Your task to perform on an android device: Add "energizer triple a" to the cart on amazon.com Image 0: 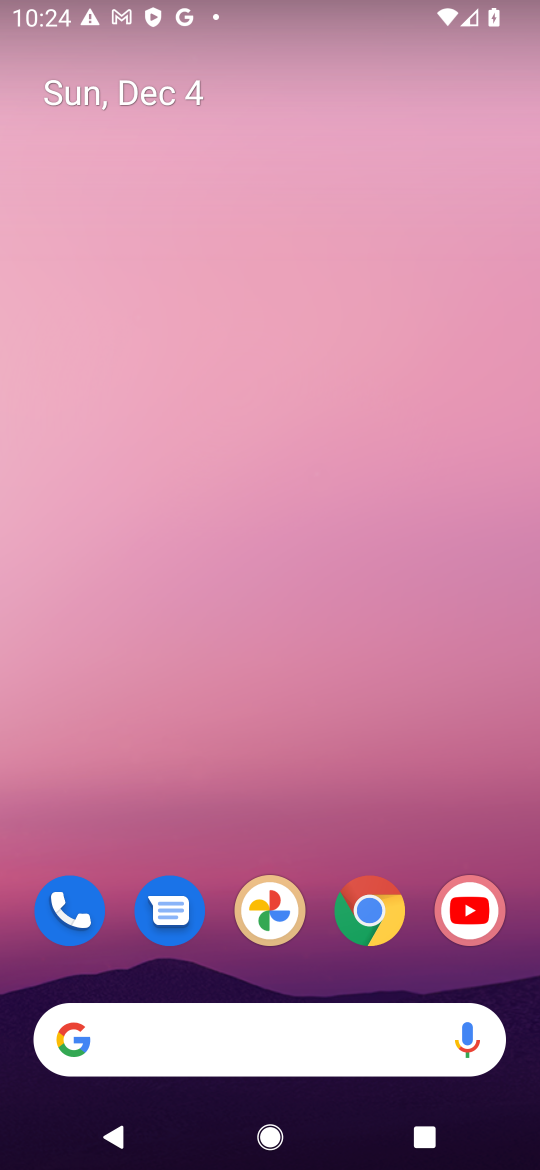
Step 0: drag from (332, 1102) to (253, 48)
Your task to perform on an android device: Add "energizer triple a" to the cart on amazon.com Image 1: 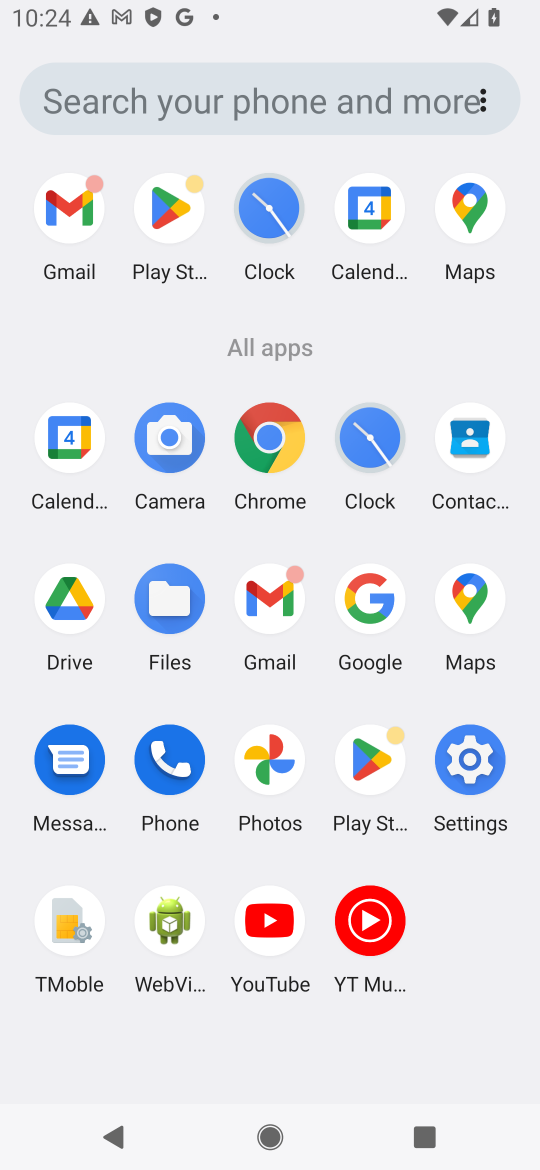
Step 1: click (261, 427)
Your task to perform on an android device: Add "energizer triple a" to the cart on amazon.com Image 2: 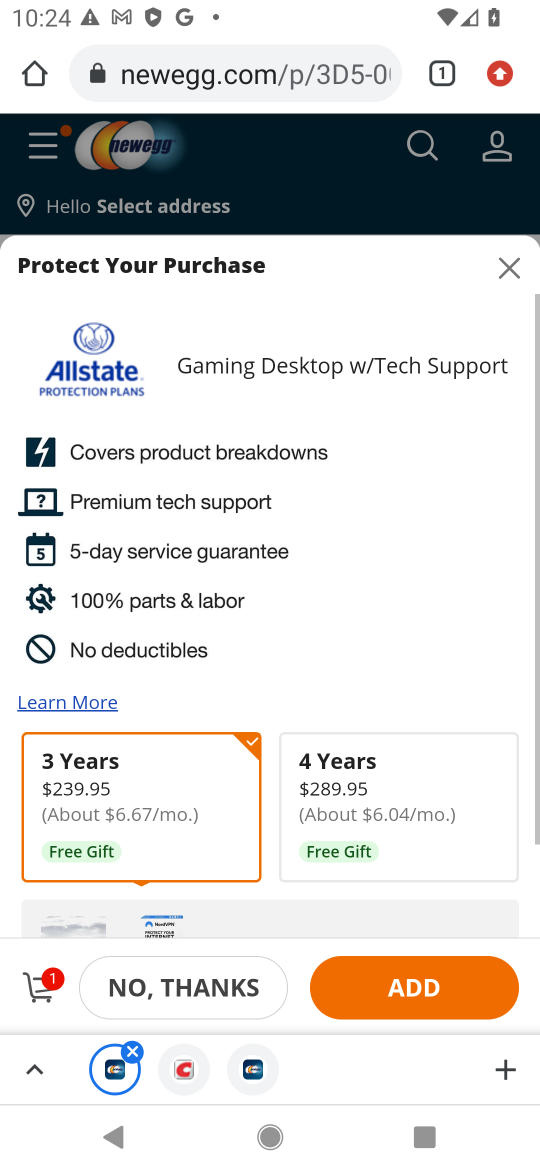
Step 2: click (198, 64)
Your task to perform on an android device: Add "energizer triple a" to the cart on amazon.com Image 3: 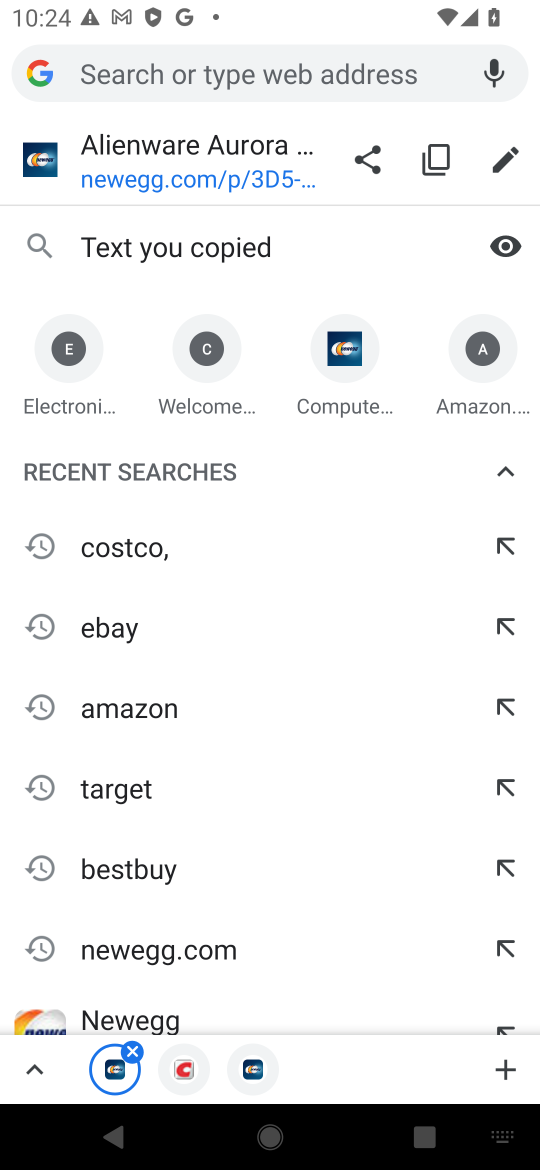
Step 3: type "amazon.com"
Your task to perform on an android device: Add "energizer triple a" to the cart on amazon.com Image 4: 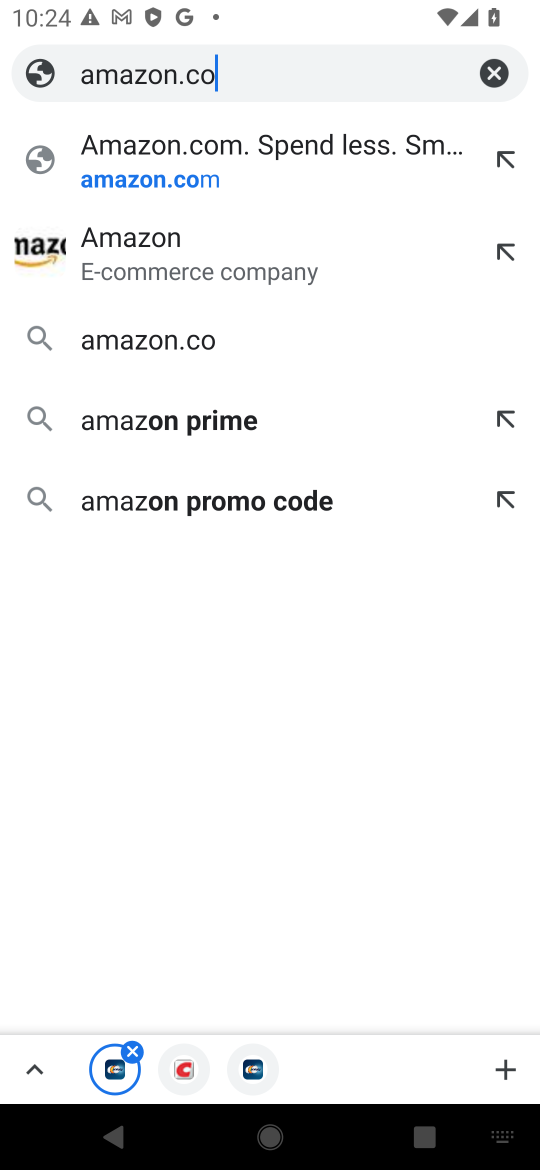
Step 4: type ""
Your task to perform on an android device: Add "energizer triple a" to the cart on amazon.com Image 5: 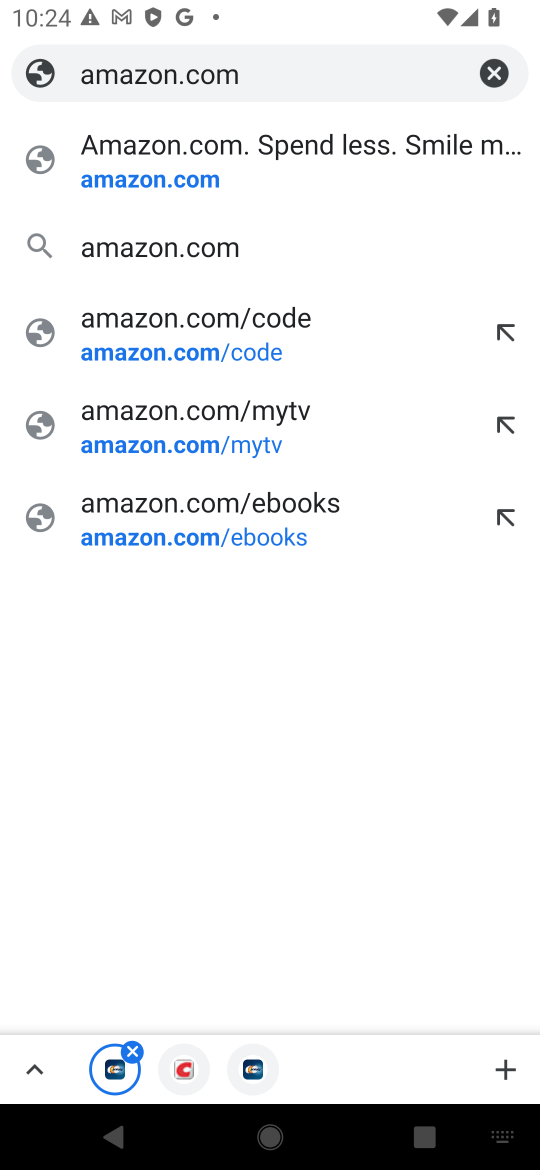
Step 5: click (135, 174)
Your task to perform on an android device: Add "energizer triple a" to the cart on amazon.com Image 6: 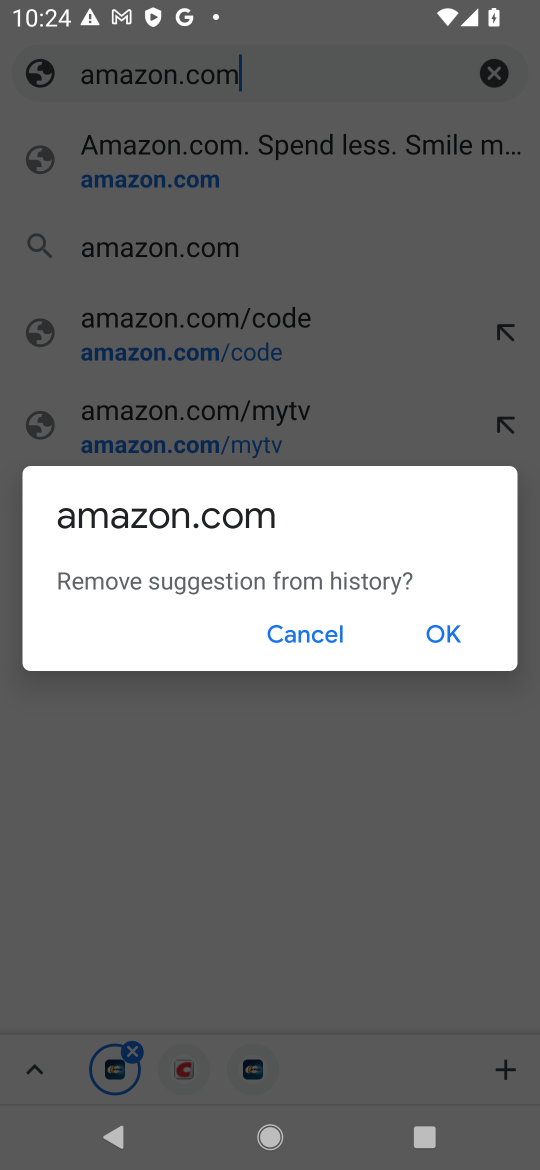
Step 6: click (436, 626)
Your task to perform on an android device: Add "energizer triple a" to the cart on amazon.com Image 7: 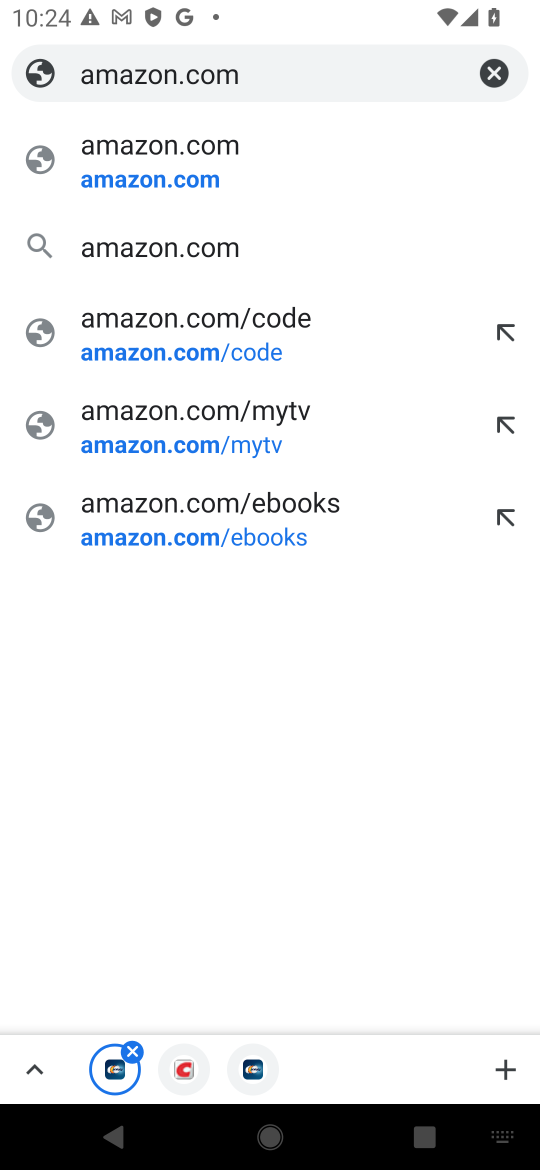
Step 7: click (183, 176)
Your task to perform on an android device: Add "energizer triple a" to the cart on amazon.com Image 8: 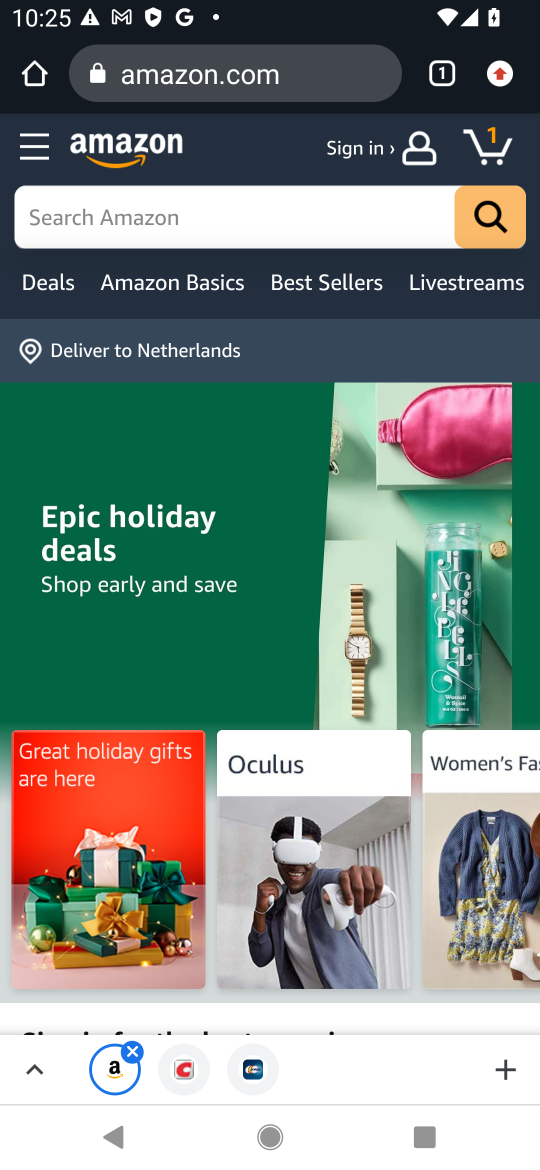
Step 8: click (218, 228)
Your task to perform on an android device: Add "energizer triple a" to the cart on amazon.com Image 9: 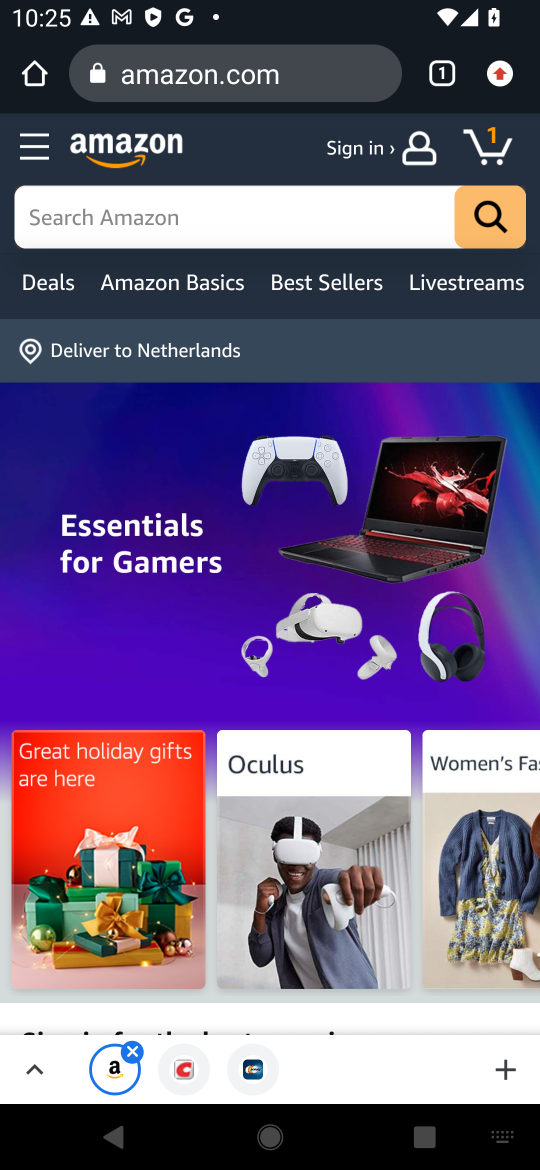
Step 9: type "energizer triple a"
Your task to perform on an android device: Add "energizer triple a" to the cart on amazon.com Image 10: 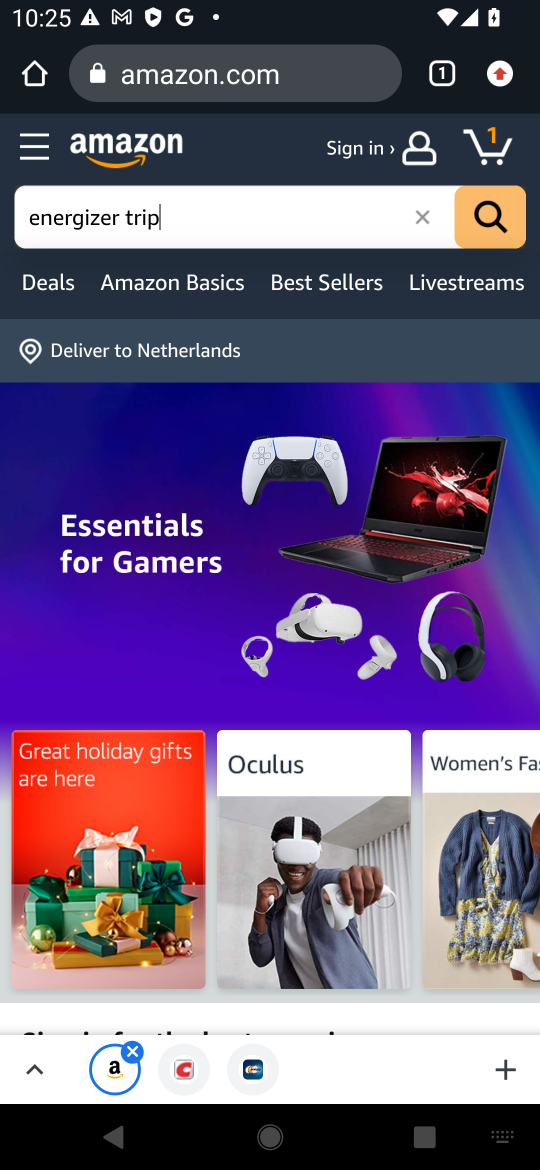
Step 10: type ""
Your task to perform on an android device: Add "energizer triple a" to the cart on amazon.com Image 11: 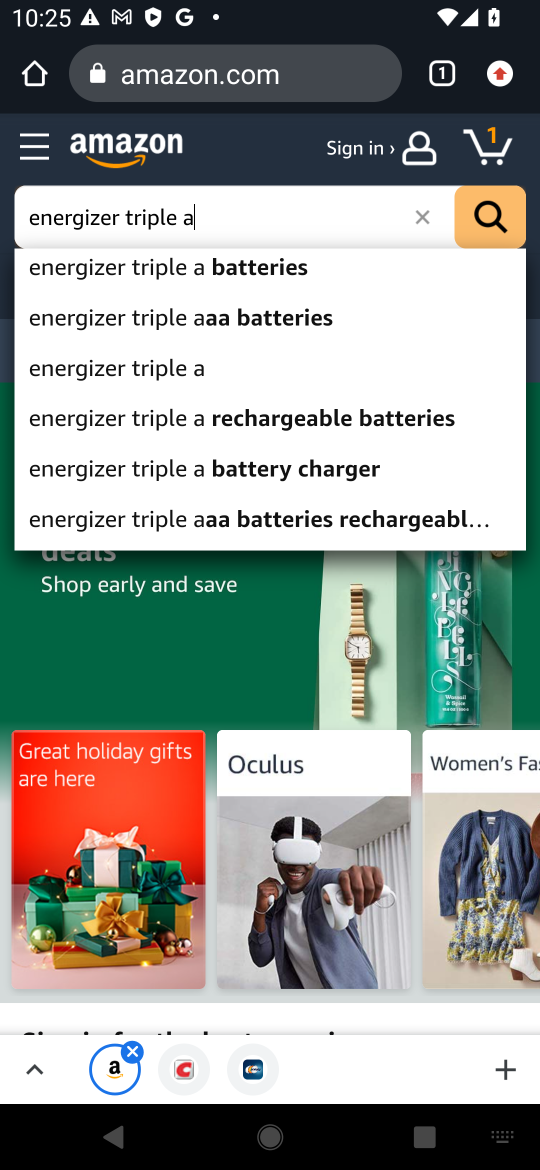
Step 11: click (167, 367)
Your task to perform on an android device: Add "energizer triple a" to the cart on amazon.com Image 12: 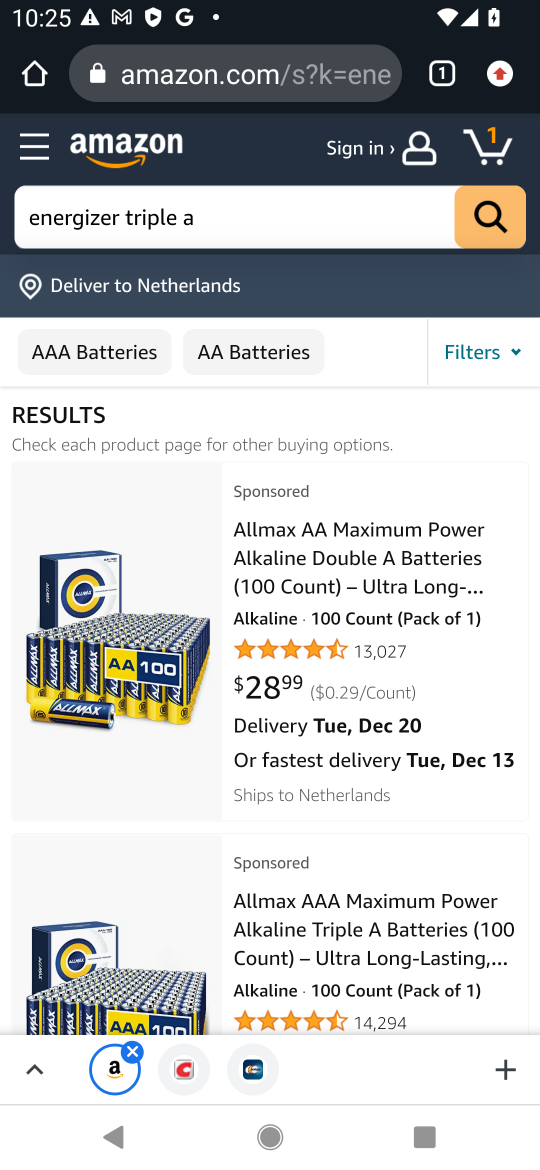
Step 12: click (114, 612)
Your task to perform on an android device: Add "energizer triple a" to the cart on amazon.com Image 13: 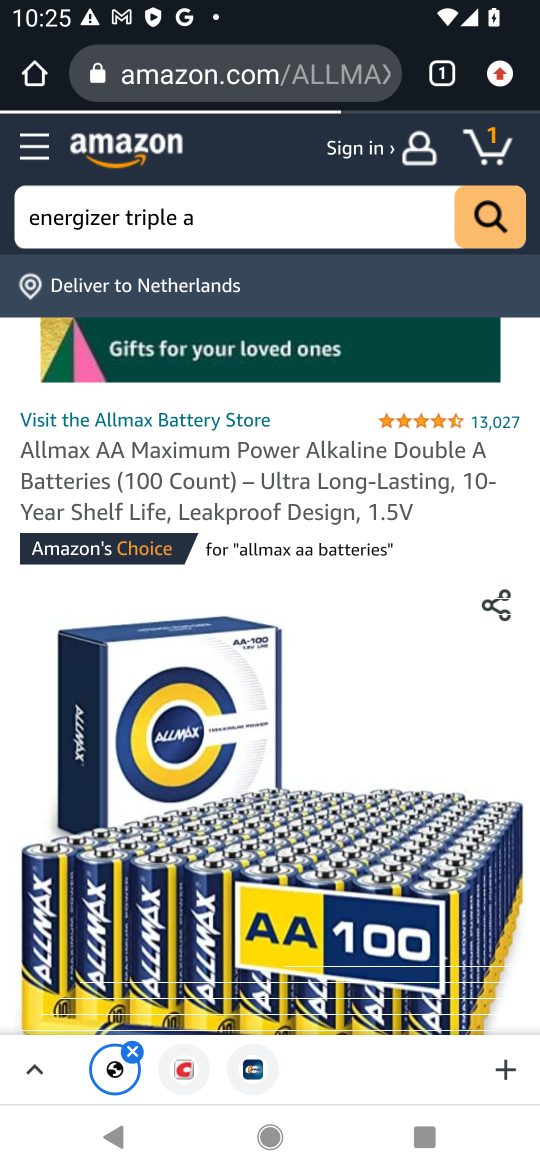
Step 13: drag from (338, 934) to (347, 294)
Your task to perform on an android device: Add "energizer triple a" to the cart on amazon.com Image 14: 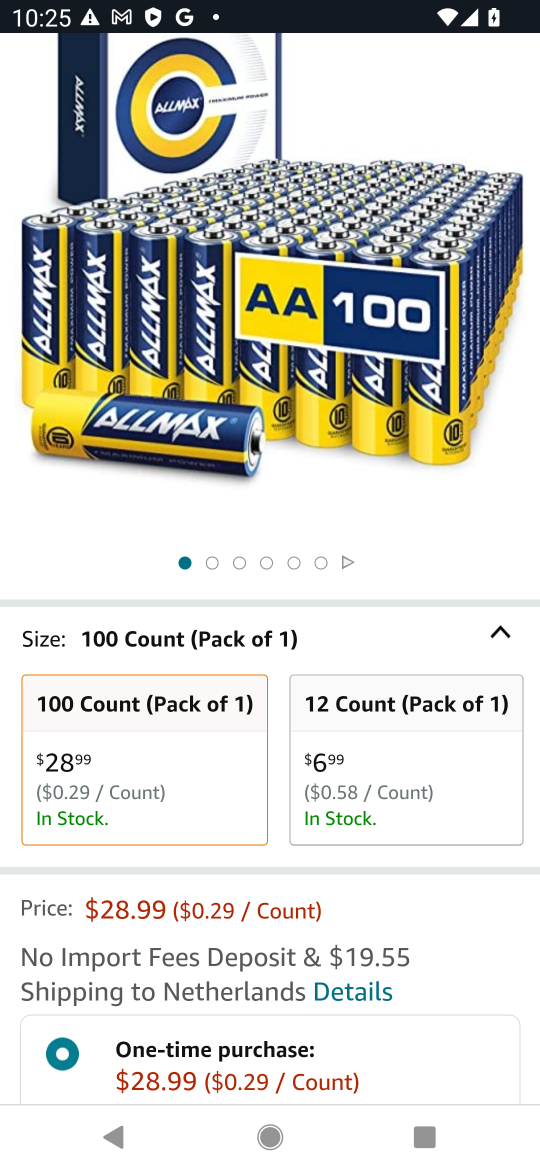
Step 14: drag from (279, 875) to (344, 452)
Your task to perform on an android device: Add "energizer triple a" to the cart on amazon.com Image 15: 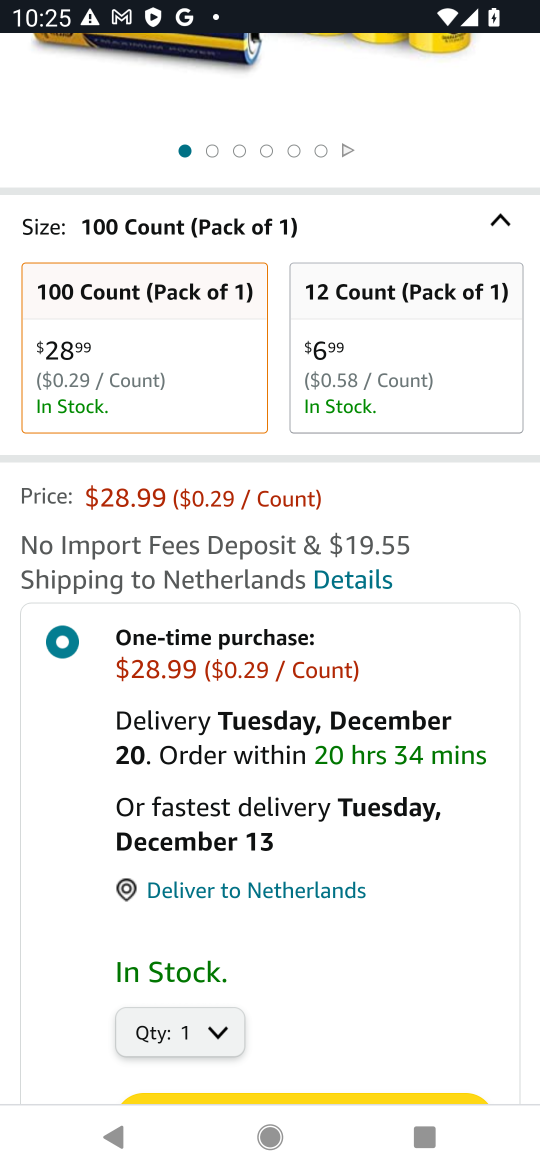
Step 15: drag from (342, 1029) to (344, 537)
Your task to perform on an android device: Add "energizer triple a" to the cart on amazon.com Image 16: 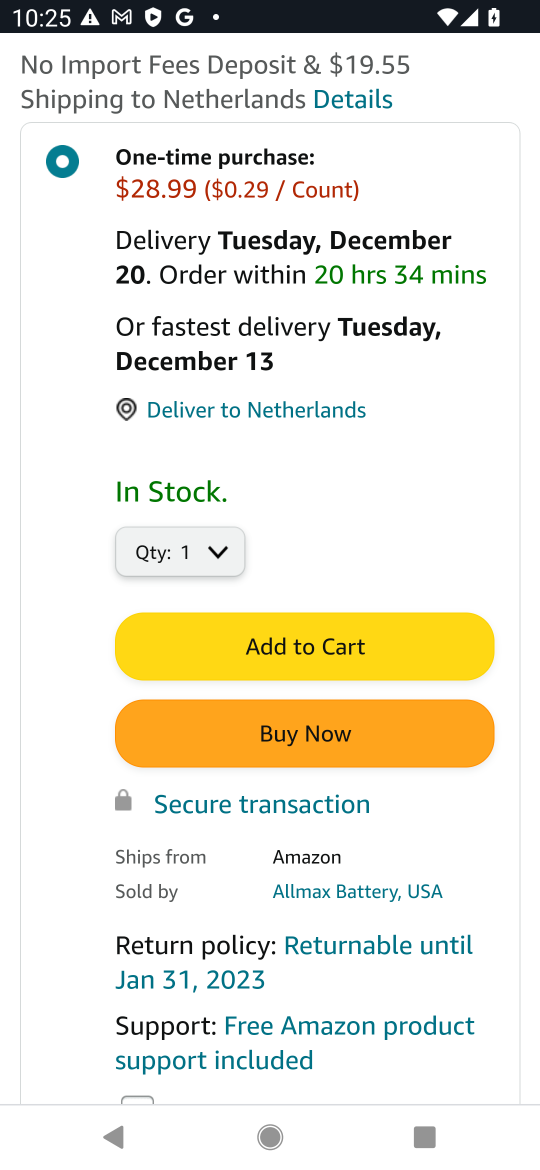
Step 16: click (317, 637)
Your task to perform on an android device: Add "energizer triple a" to the cart on amazon.com Image 17: 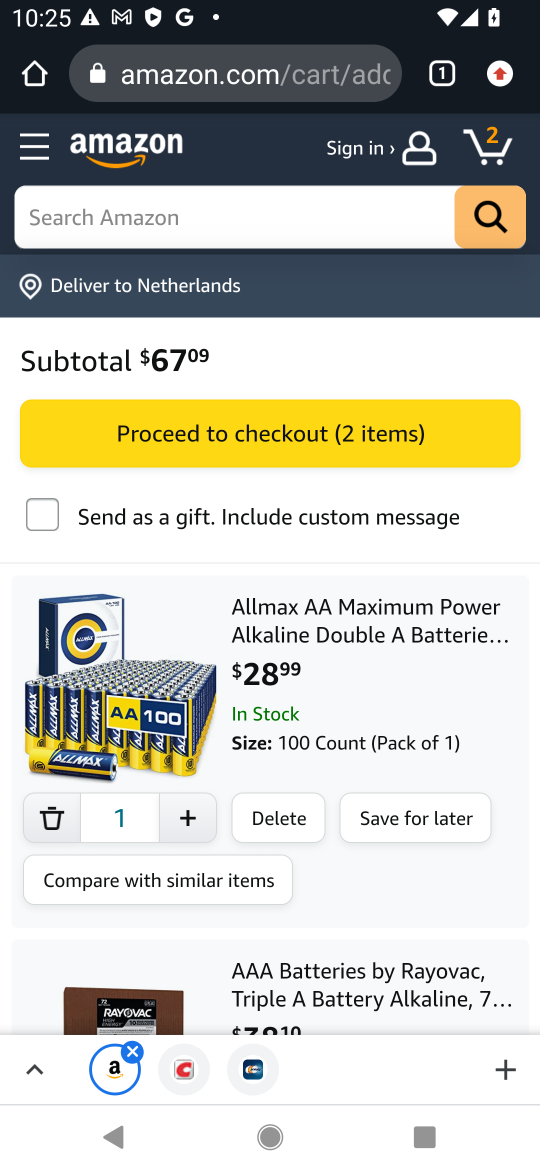
Step 17: task complete